Your task to perform on an android device: turn on javascript in the chrome app Image 0: 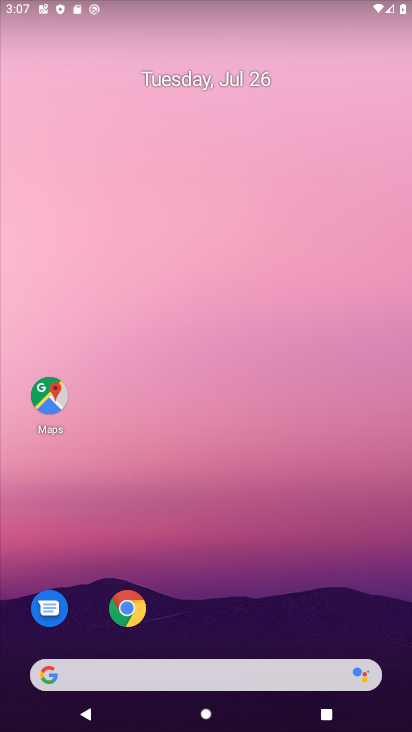
Step 0: click (136, 610)
Your task to perform on an android device: turn on javascript in the chrome app Image 1: 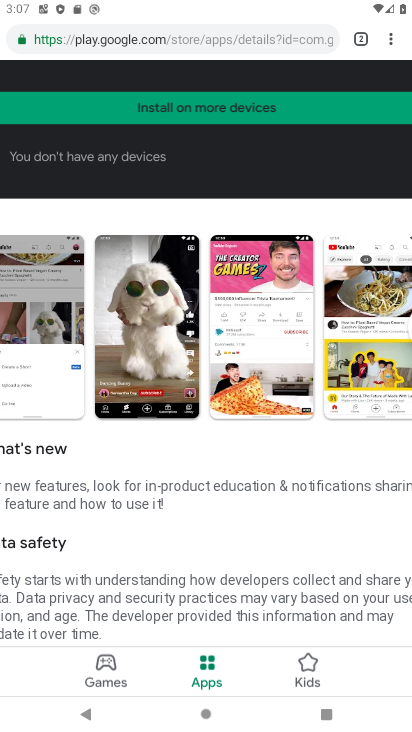
Step 1: click (393, 39)
Your task to perform on an android device: turn on javascript in the chrome app Image 2: 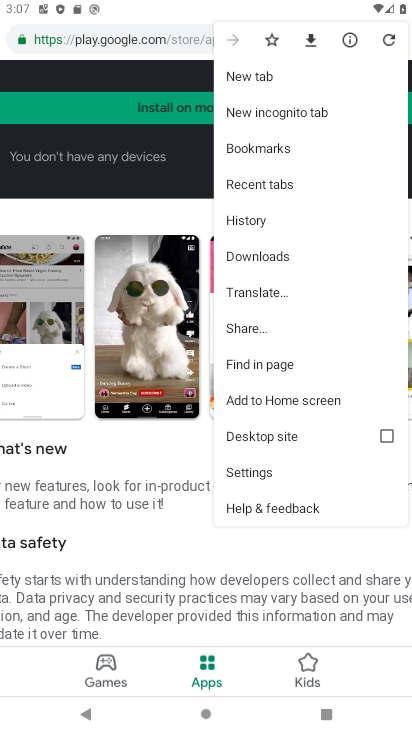
Step 2: click (258, 465)
Your task to perform on an android device: turn on javascript in the chrome app Image 3: 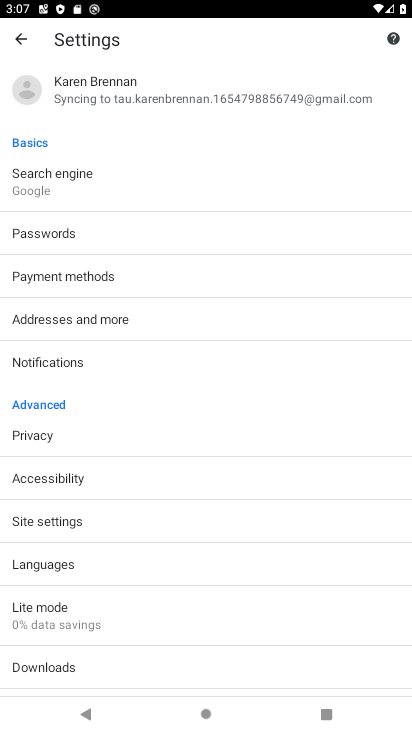
Step 3: click (105, 532)
Your task to perform on an android device: turn on javascript in the chrome app Image 4: 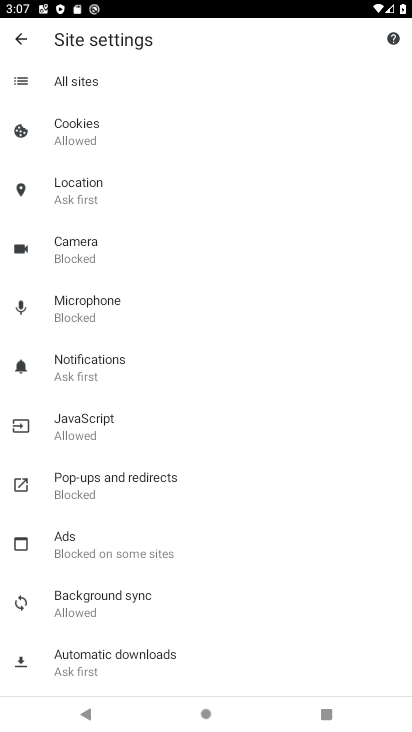
Step 4: click (105, 444)
Your task to perform on an android device: turn on javascript in the chrome app Image 5: 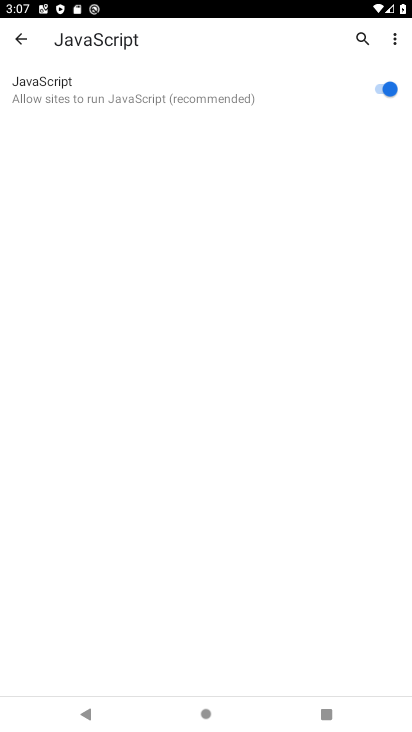
Step 5: task complete